Your task to perform on an android device: Go to privacy settings Image 0: 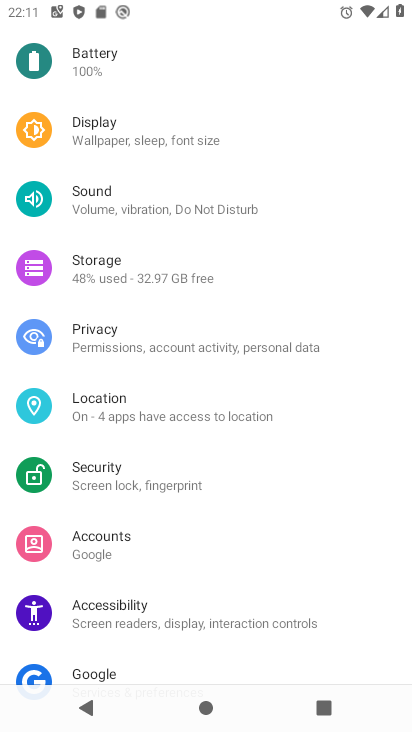
Step 0: click (207, 337)
Your task to perform on an android device: Go to privacy settings Image 1: 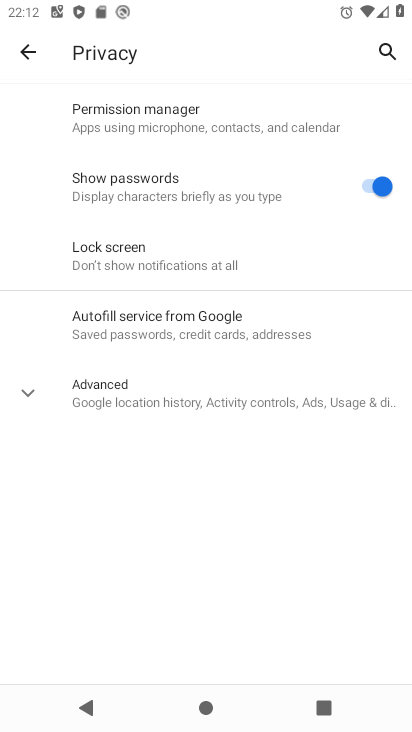
Step 1: task complete